Your task to perform on an android device: Open sound settings Image 0: 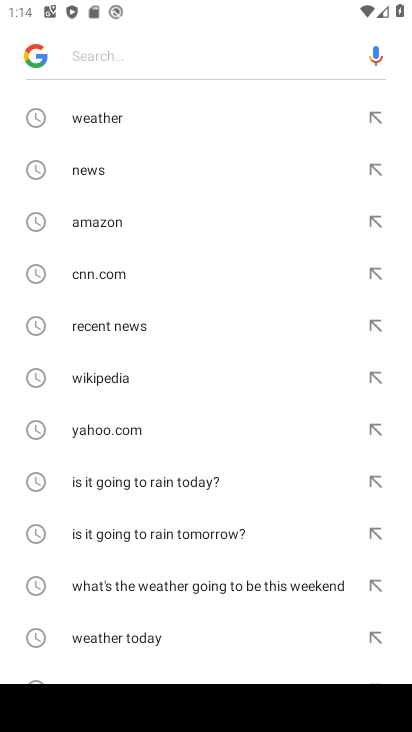
Step 0: press back button
Your task to perform on an android device: Open sound settings Image 1: 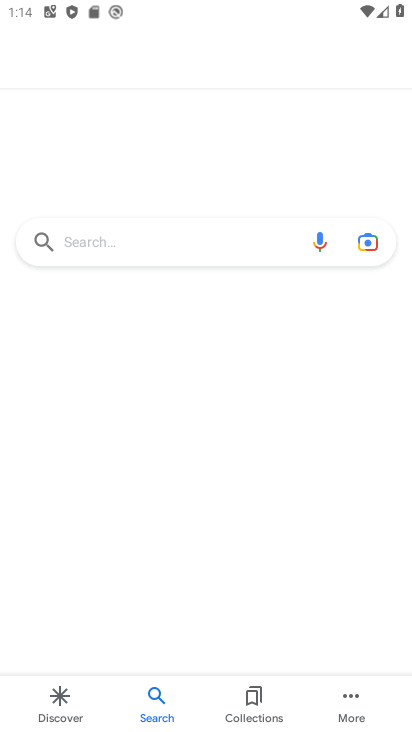
Step 1: press home button
Your task to perform on an android device: Open sound settings Image 2: 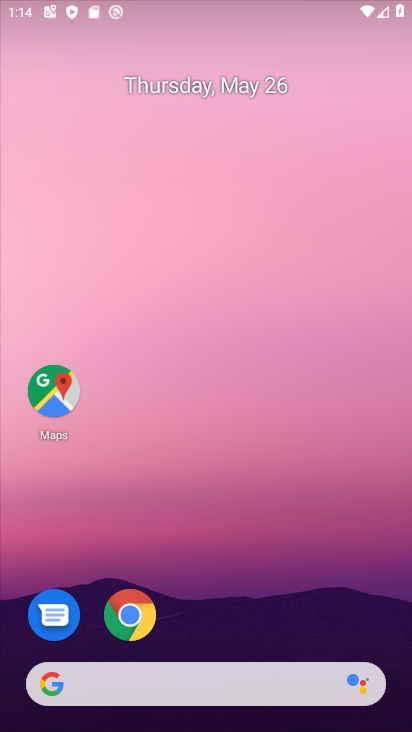
Step 2: drag from (176, 581) to (336, 53)
Your task to perform on an android device: Open sound settings Image 3: 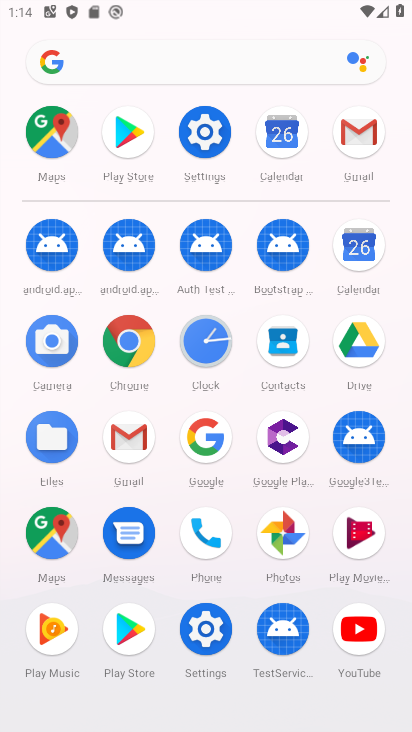
Step 3: click (199, 133)
Your task to perform on an android device: Open sound settings Image 4: 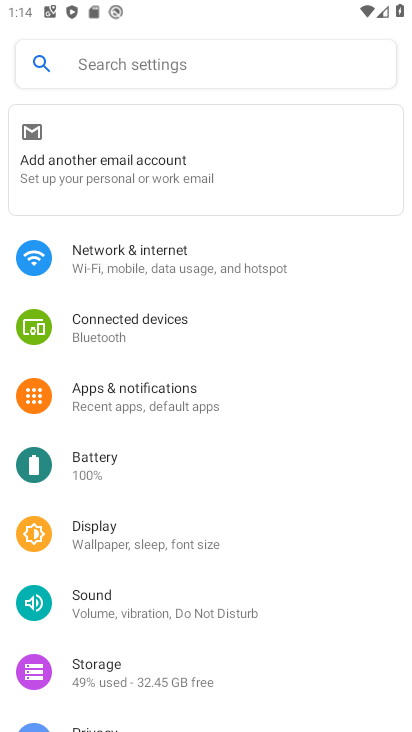
Step 4: click (127, 614)
Your task to perform on an android device: Open sound settings Image 5: 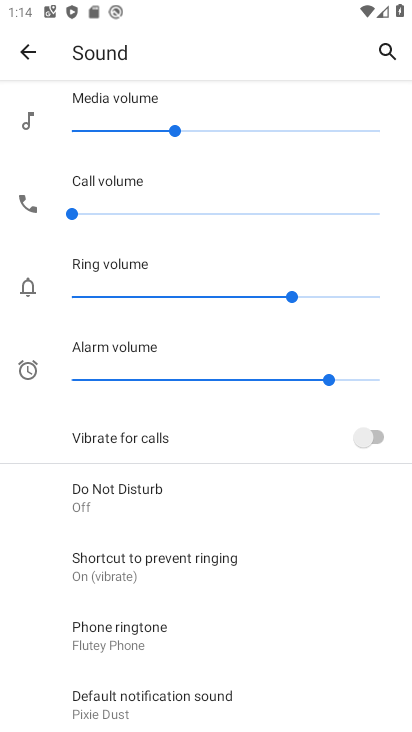
Step 5: task complete